Your task to perform on an android device: Search for Italian restaurants on Maps Image 0: 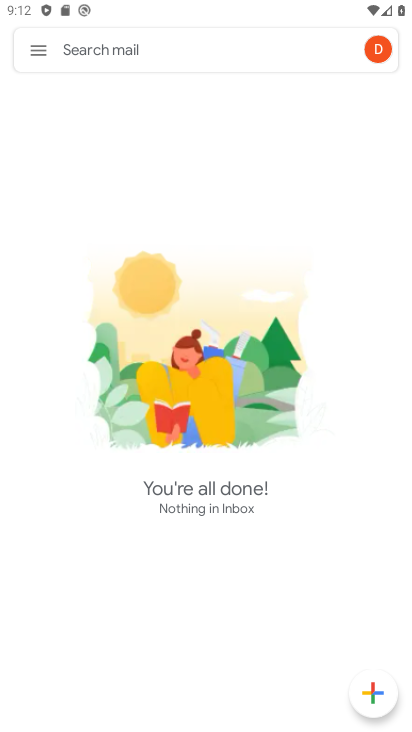
Step 0: press home button
Your task to perform on an android device: Search for Italian restaurants on Maps Image 1: 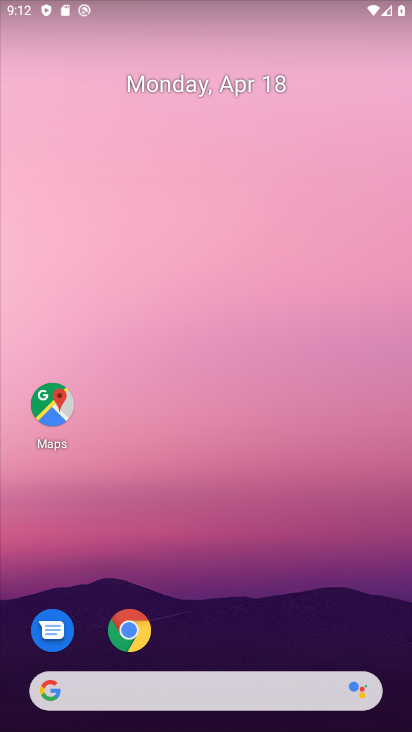
Step 1: click (41, 407)
Your task to perform on an android device: Search for Italian restaurants on Maps Image 2: 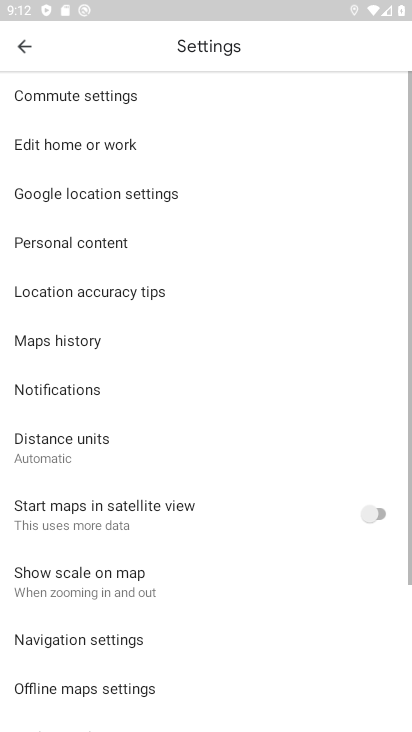
Step 2: click (66, 306)
Your task to perform on an android device: Search for Italian restaurants on Maps Image 3: 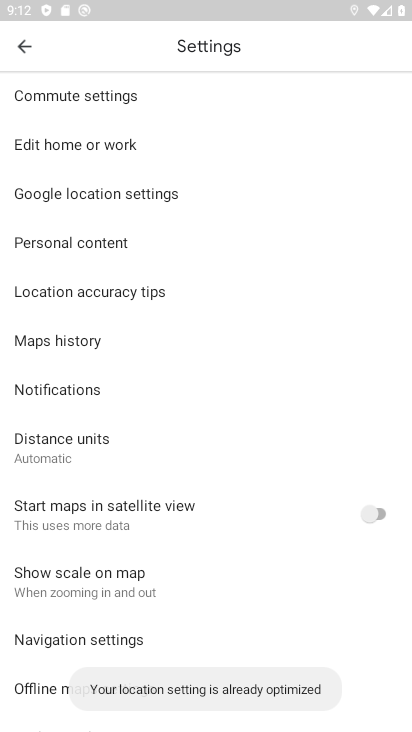
Step 3: click (25, 41)
Your task to perform on an android device: Search for Italian restaurants on Maps Image 4: 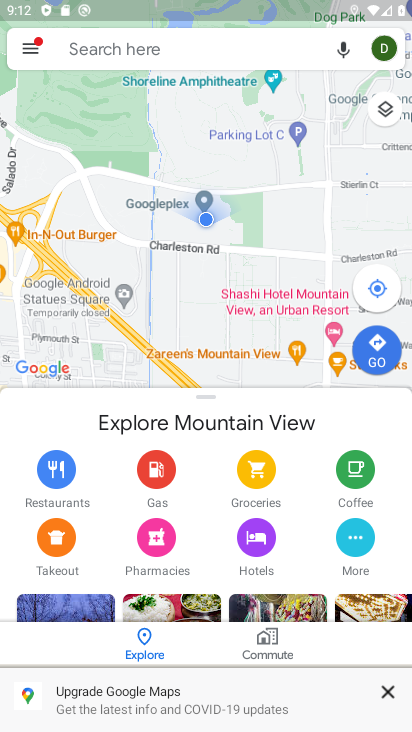
Step 4: click (126, 48)
Your task to perform on an android device: Search for Italian restaurants on Maps Image 5: 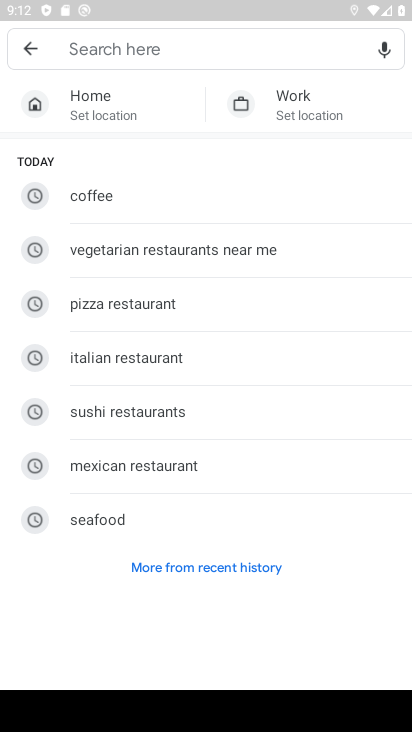
Step 5: click (145, 351)
Your task to perform on an android device: Search for Italian restaurants on Maps Image 6: 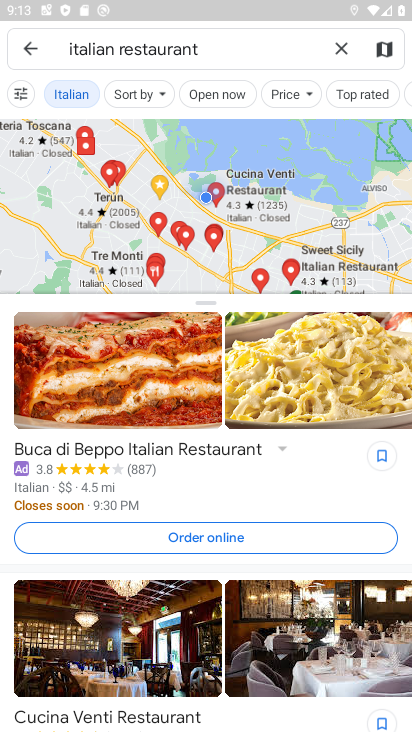
Step 6: task complete